Your task to perform on an android device: find photos in the google photos app Image 0: 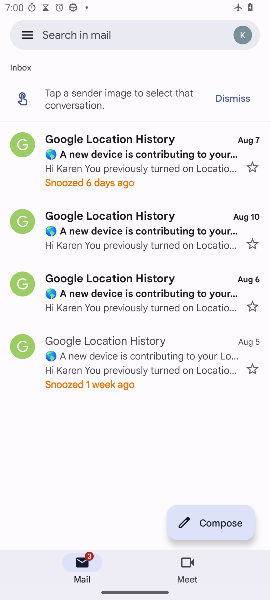
Step 0: press home button
Your task to perform on an android device: find photos in the google photos app Image 1: 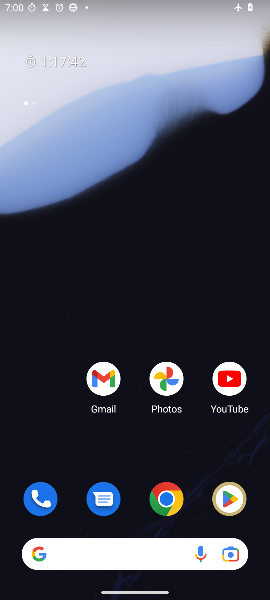
Step 1: drag from (115, 493) to (230, 3)
Your task to perform on an android device: find photos in the google photos app Image 2: 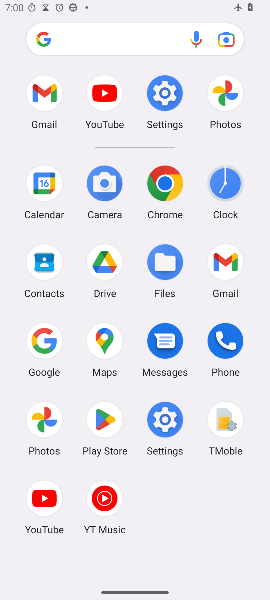
Step 2: click (216, 96)
Your task to perform on an android device: find photos in the google photos app Image 3: 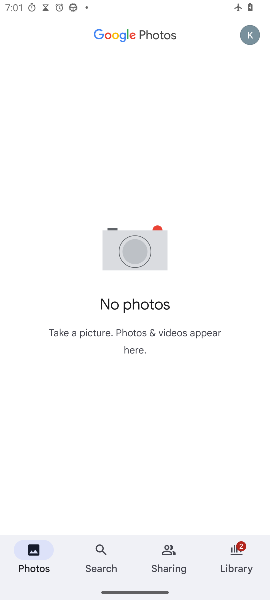
Step 3: task complete